Your task to perform on an android device: Go to wifi settings Image 0: 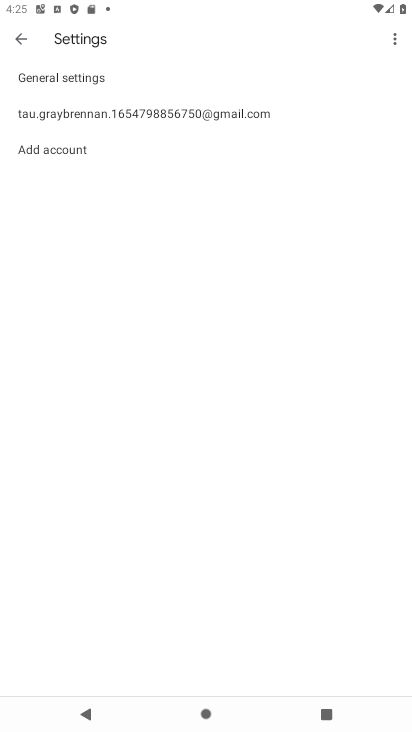
Step 0: press home button
Your task to perform on an android device: Go to wifi settings Image 1: 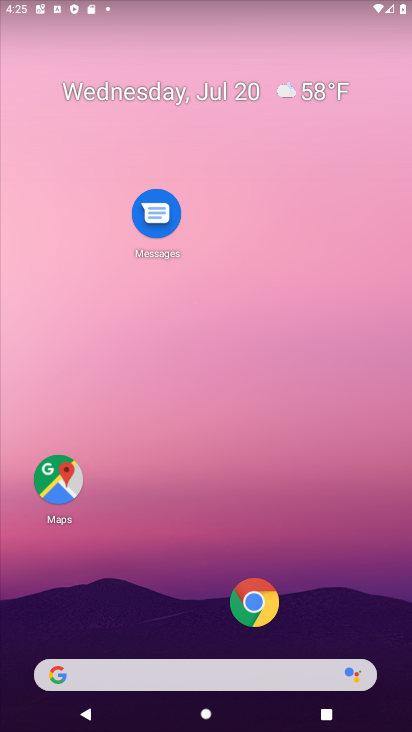
Step 1: drag from (187, 616) to (204, 365)
Your task to perform on an android device: Go to wifi settings Image 2: 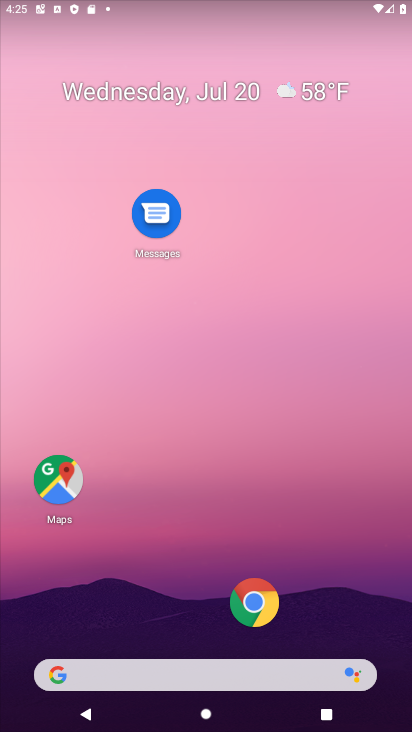
Step 2: drag from (162, 590) to (162, 292)
Your task to perform on an android device: Go to wifi settings Image 3: 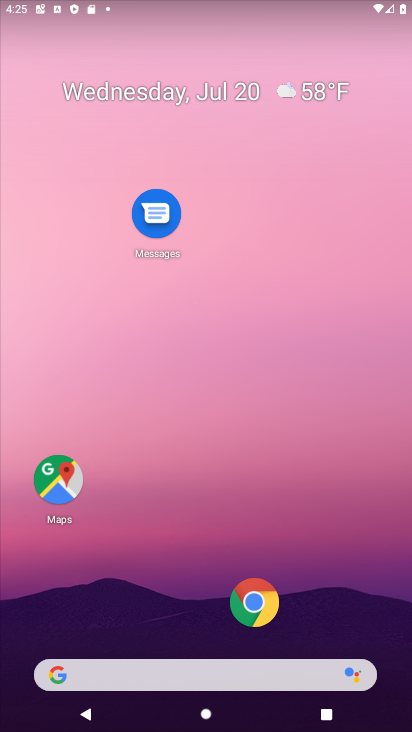
Step 3: drag from (161, 566) to (126, 120)
Your task to perform on an android device: Go to wifi settings Image 4: 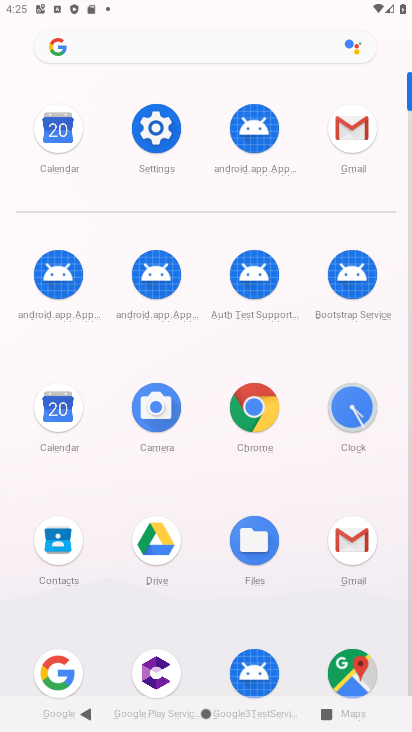
Step 4: click (151, 136)
Your task to perform on an android device: Go to wifi settings Image 5: 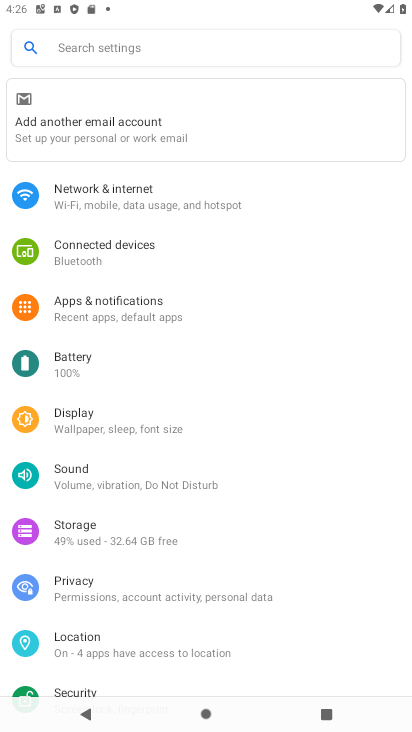
Step 5: click (127, 197)
Your task to perform on an android device: Go to wifi settings Image 6: 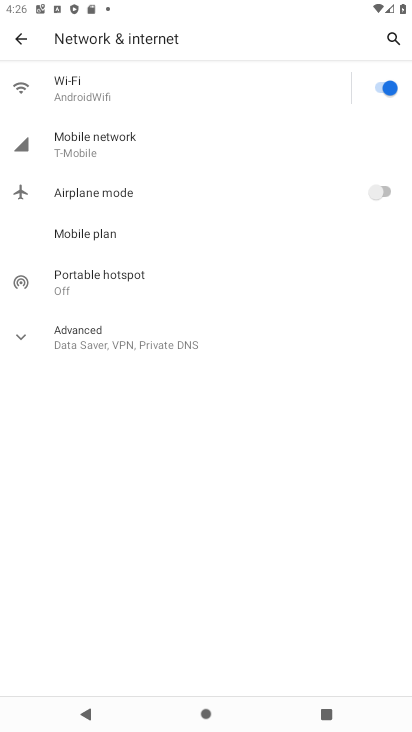
Step 6: click (145, 94)
Your task to perform on an android device: Go to wifi settings Image 7: 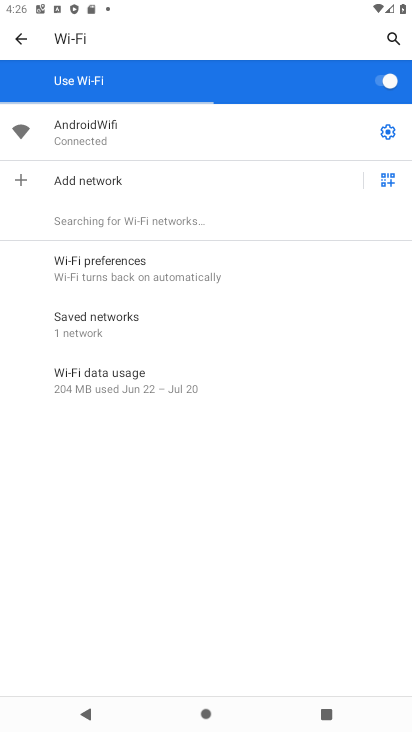
Step 7: task complete